Your task to perform on an android device: Search for Italian restaurants on Maps Image 0: 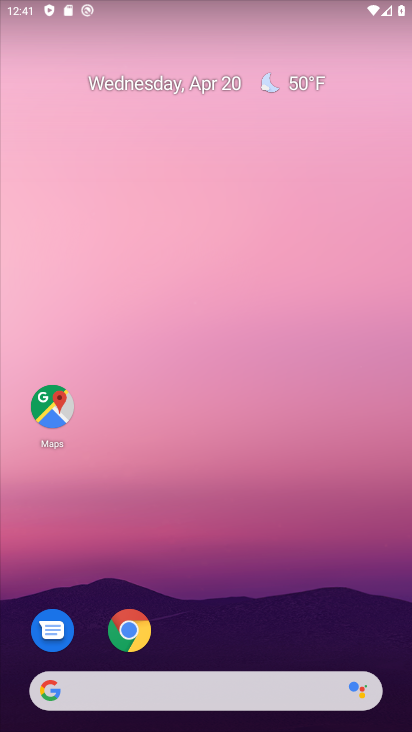
Step 0: press home button
Your task to perform on an android device: Search for Italian restaurants on Maps Image 1: 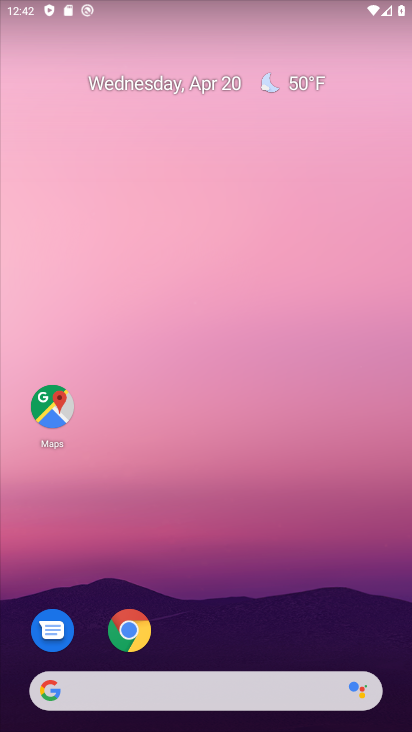
Step 1: drag from (237, 596) to (263, 179)
Your task to perform on an android device: Search for Italian restaurants on Maps Image 2: 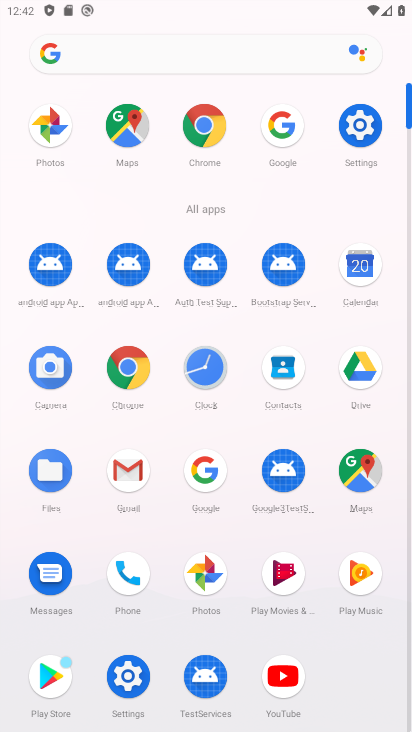
Step 2: click (132, 125)
Your task to perform on an android device: Search for Italian restaurants on Maps Image 3: 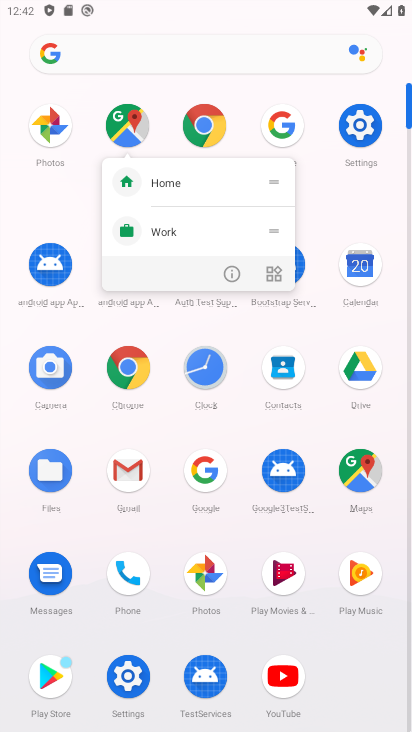
Step 3: click (136, 128)
Your task to perform on an android device: Search for Italian restaurants on Maps Image 4: 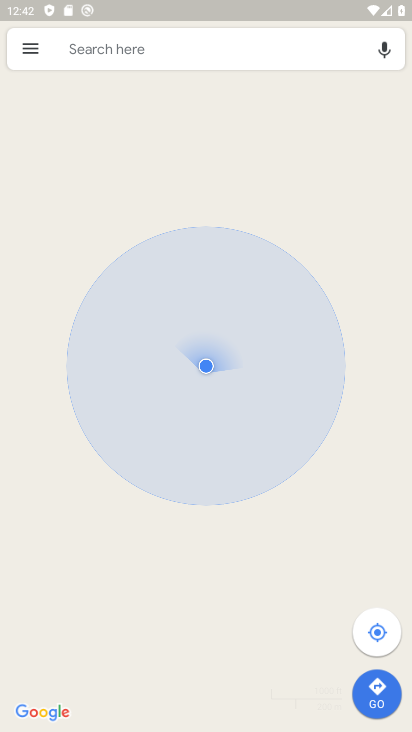
Step 4: click (186, 51)
Your task to perform on an android device: Search for Italian restaurants on Maps Image 5: 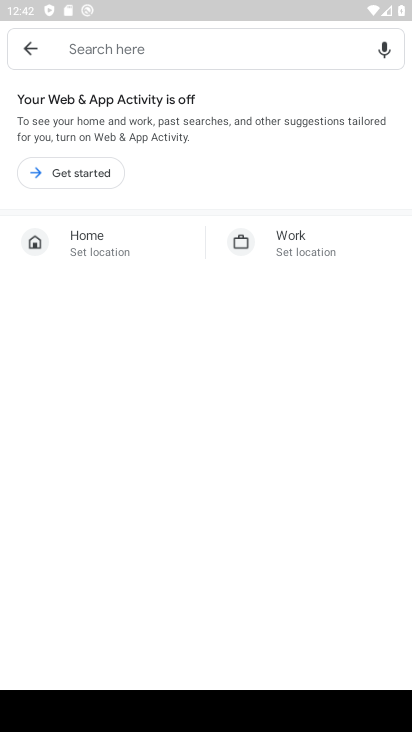
Step 5: click (81, 171)
Your task to perform on an android device: Search for Italian restaurants on Maps Image 6: 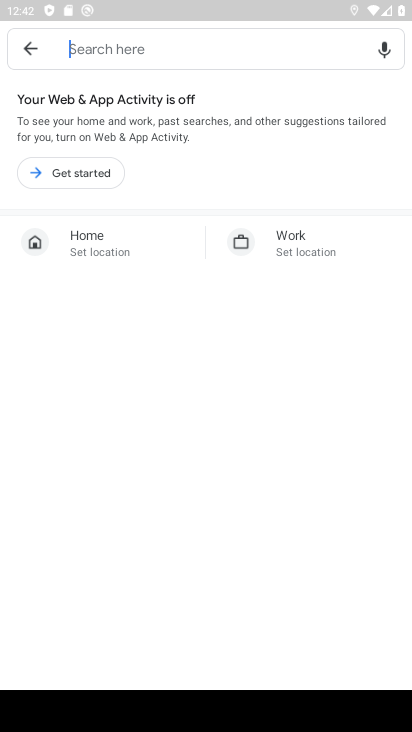
Step 6: click (81, 171)
Your task to perform on an android device: Search for Italian restaurants on Maps Image 7: 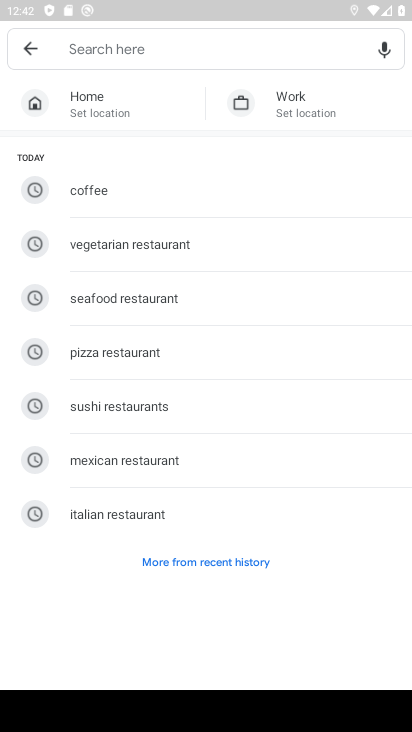
Step 7: click (101, 511)
Your task to perform on an android device: Search for Italian restaurants on Maps Image 8: 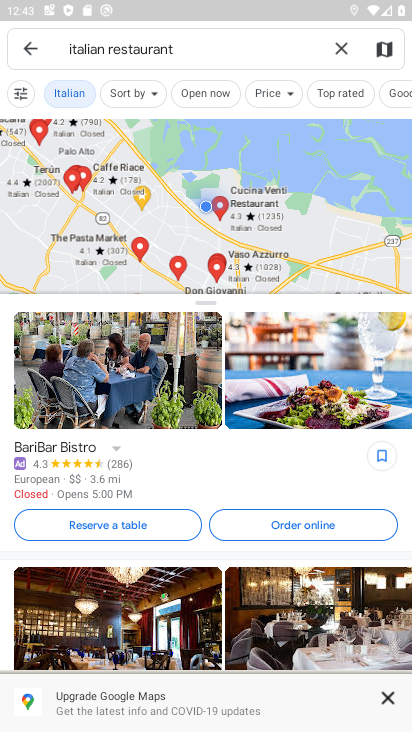
Step 8: task complete